Your task to perform on an android device: install app "Microsoft Excel" Image 0: 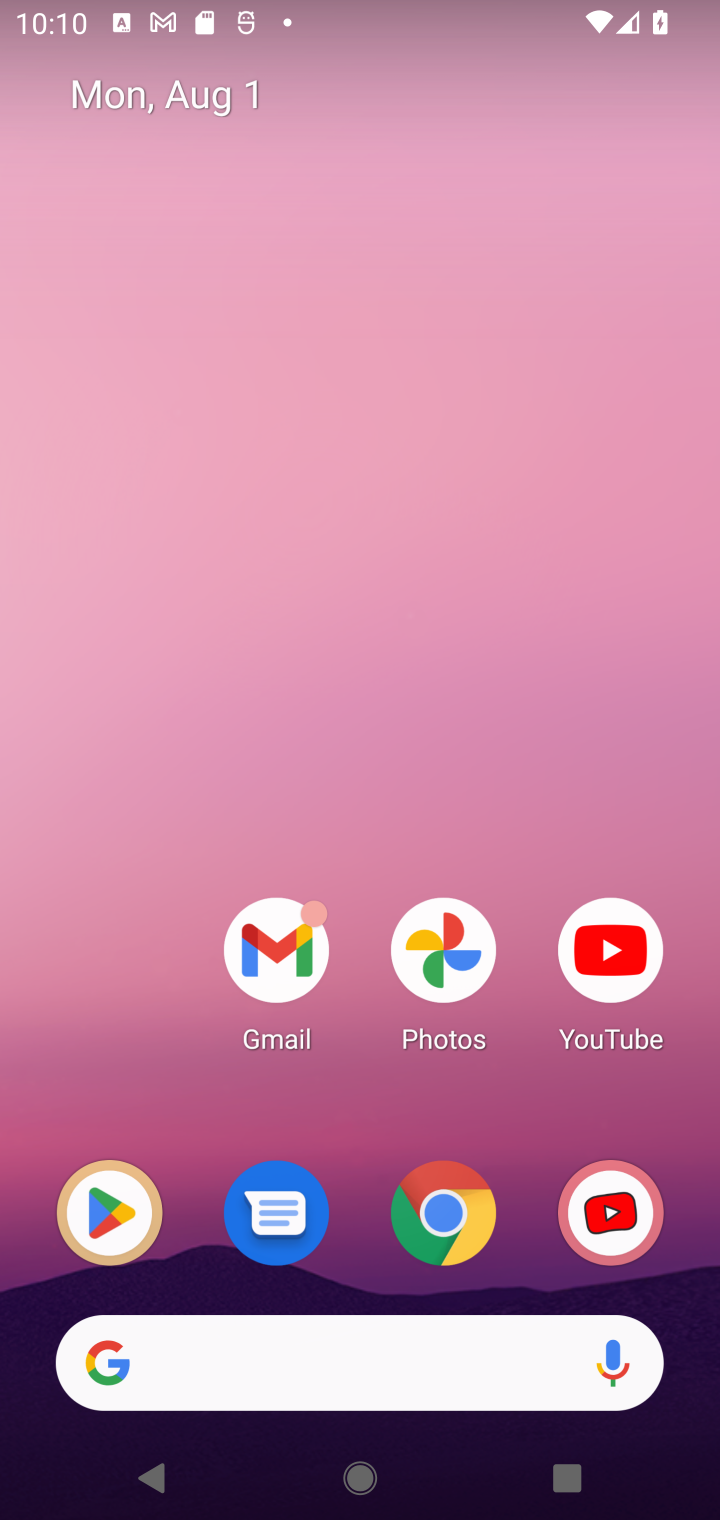
Step 0: press home button
Your task to perform on an android device: install app "Microsoft Excel" Image 1: 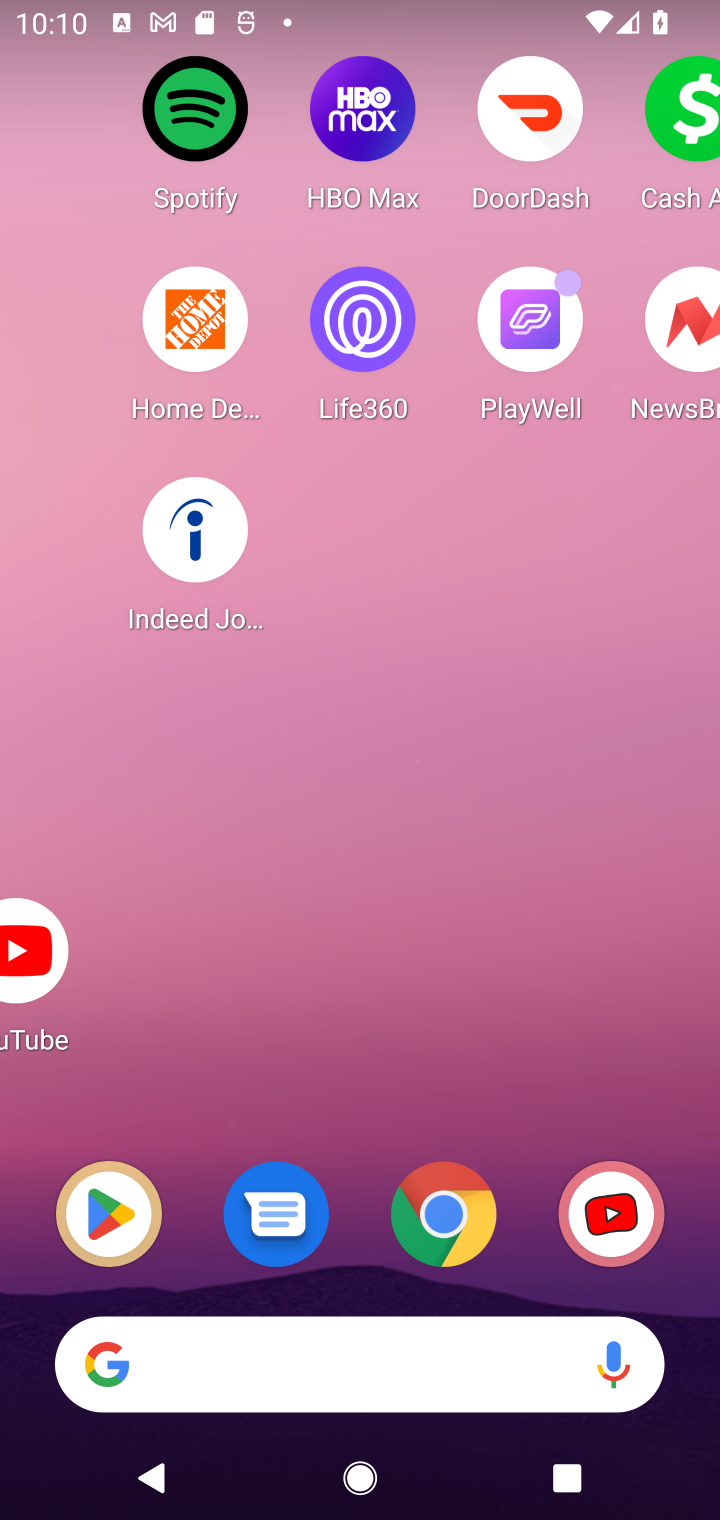
Step 1: click (133, 1206)
Your task to perform on an android device: install app "Microsoft Excel" Image 2: 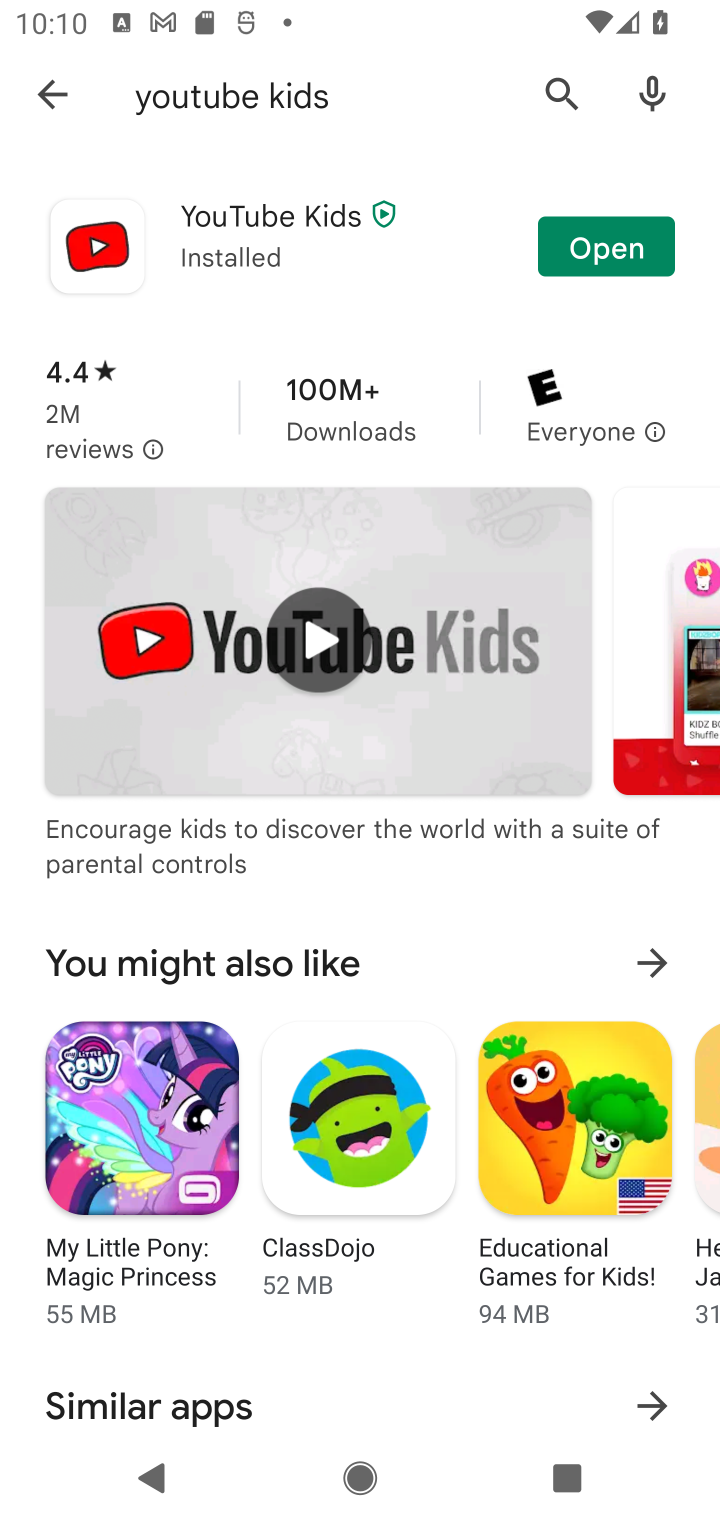
Step 2: click (554, 90)
Your task to perform on an android device: install app "Microsoft Excel" Image 3: 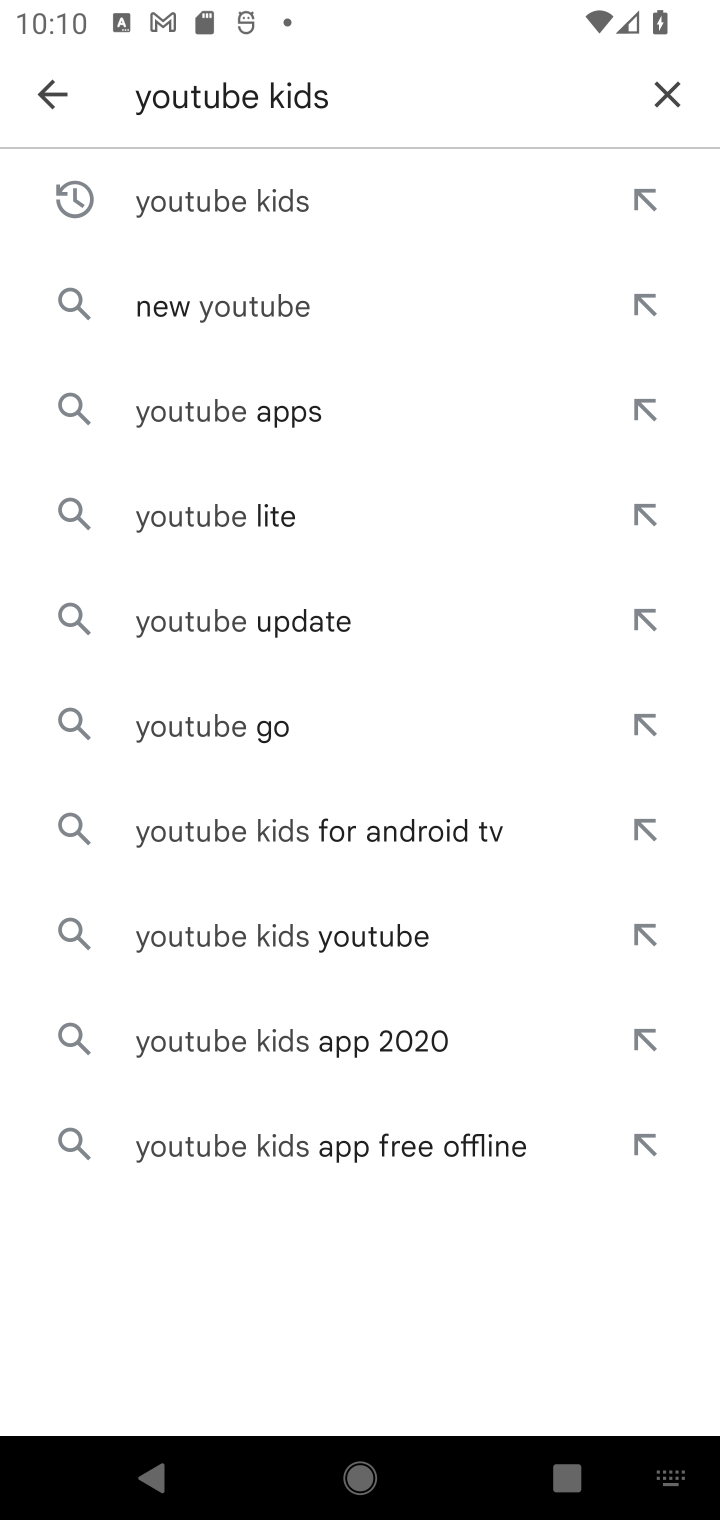
Step 3: click (664, 86)
Your task to perform on an android device: install app "Microsoft Excel" Image 4: 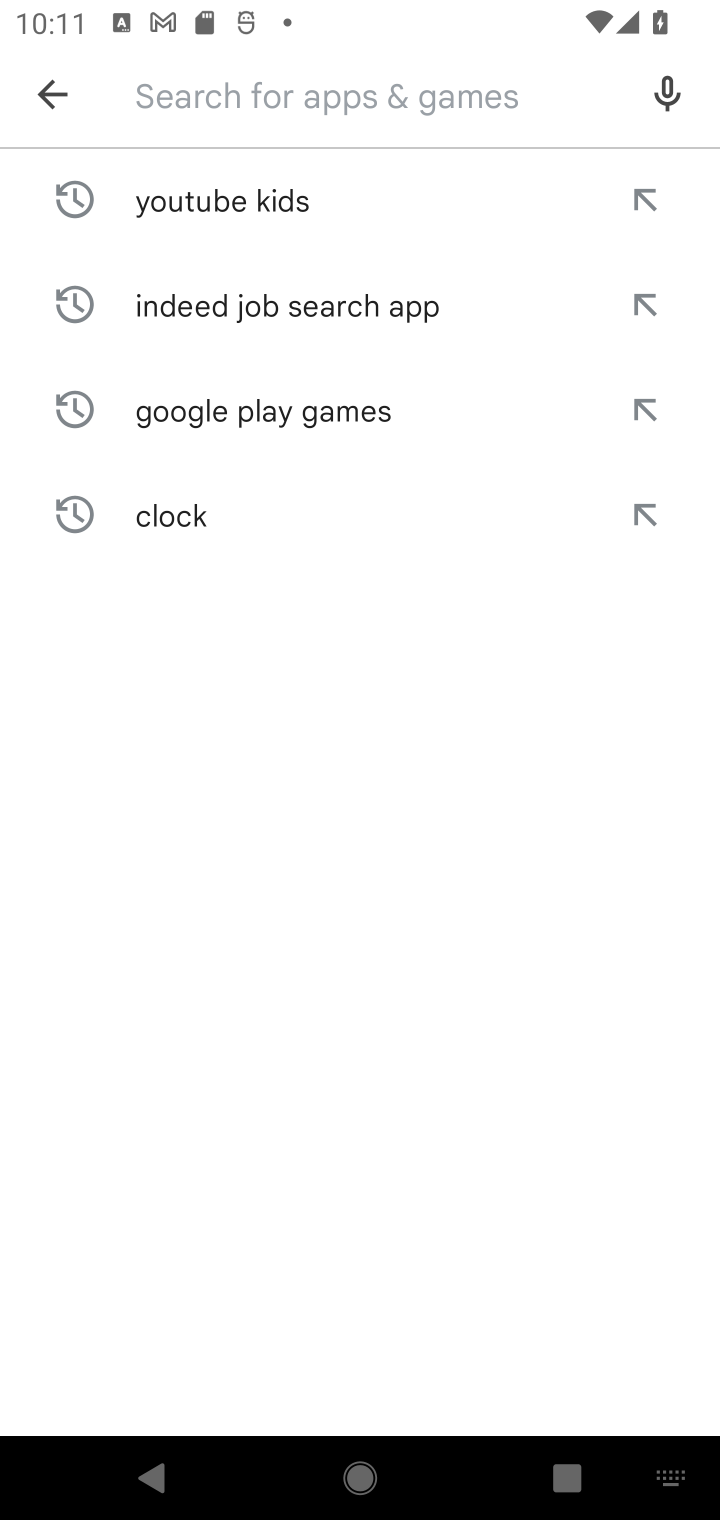
Step 4: type "Microsoft Excel"
Your task to perform on an android device: install app "Microsoft Excel" Image 5: 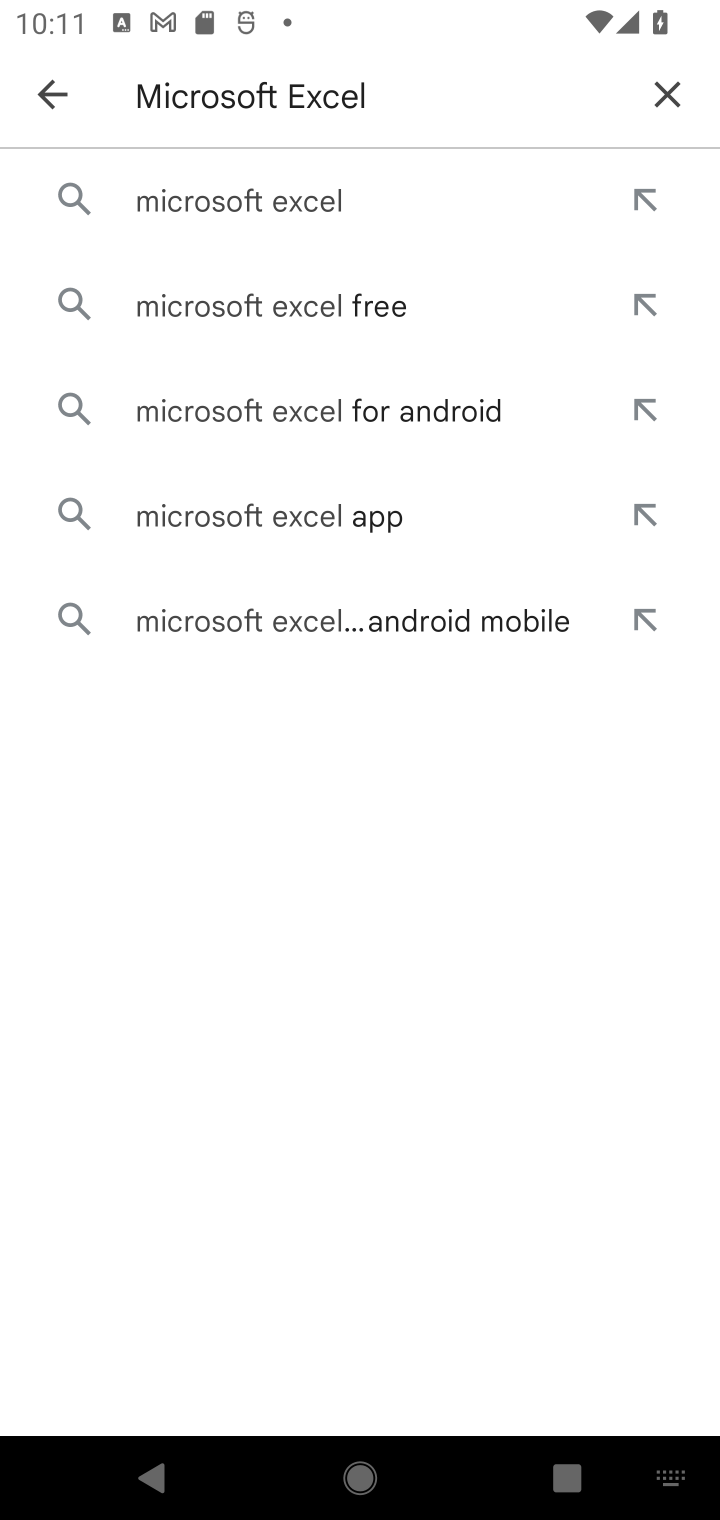
Step 5: click (311, 195)
Your task to perform on an android device: install app "Microsoft Excel" Image 6: 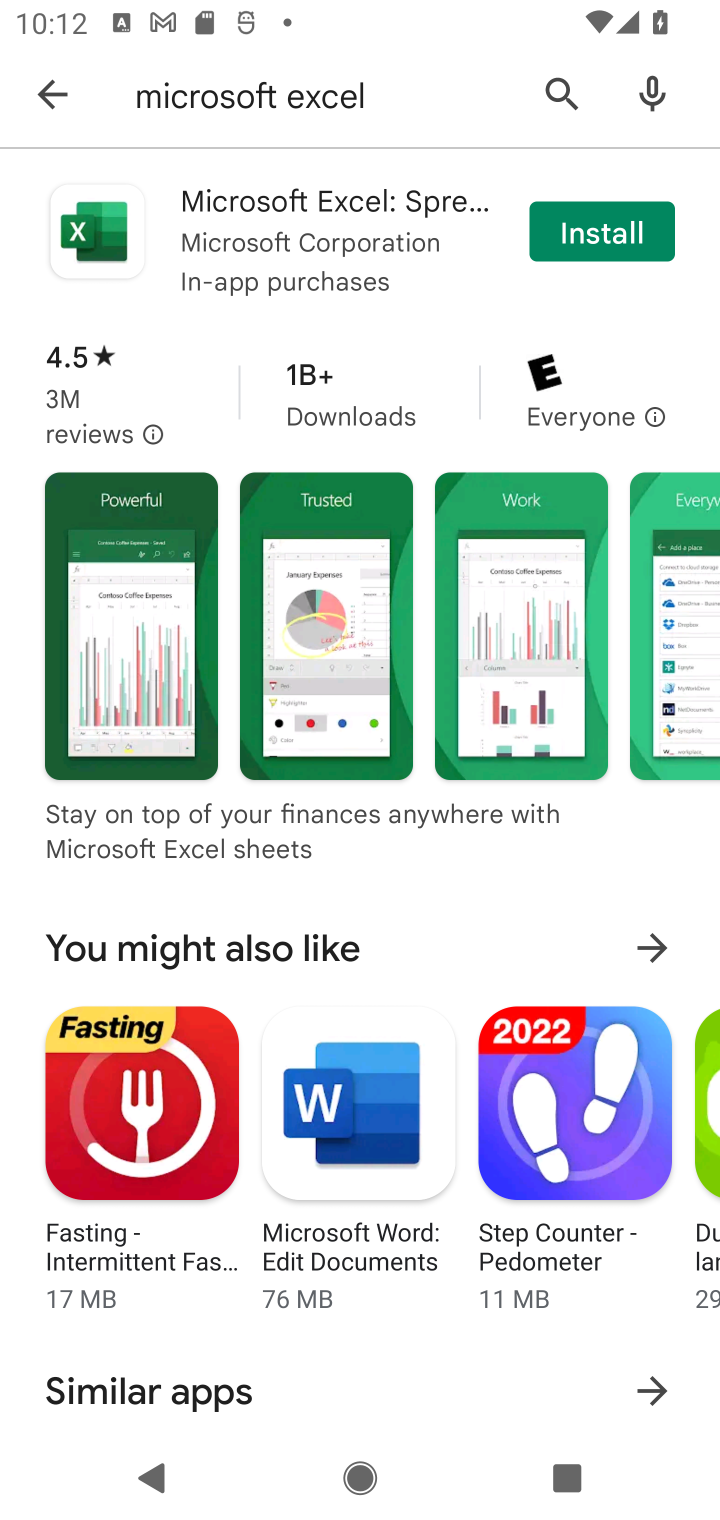
Step 6: click (594, 238)
Your task to perform on an android device: install app "Microsoft Excel" Image 7: 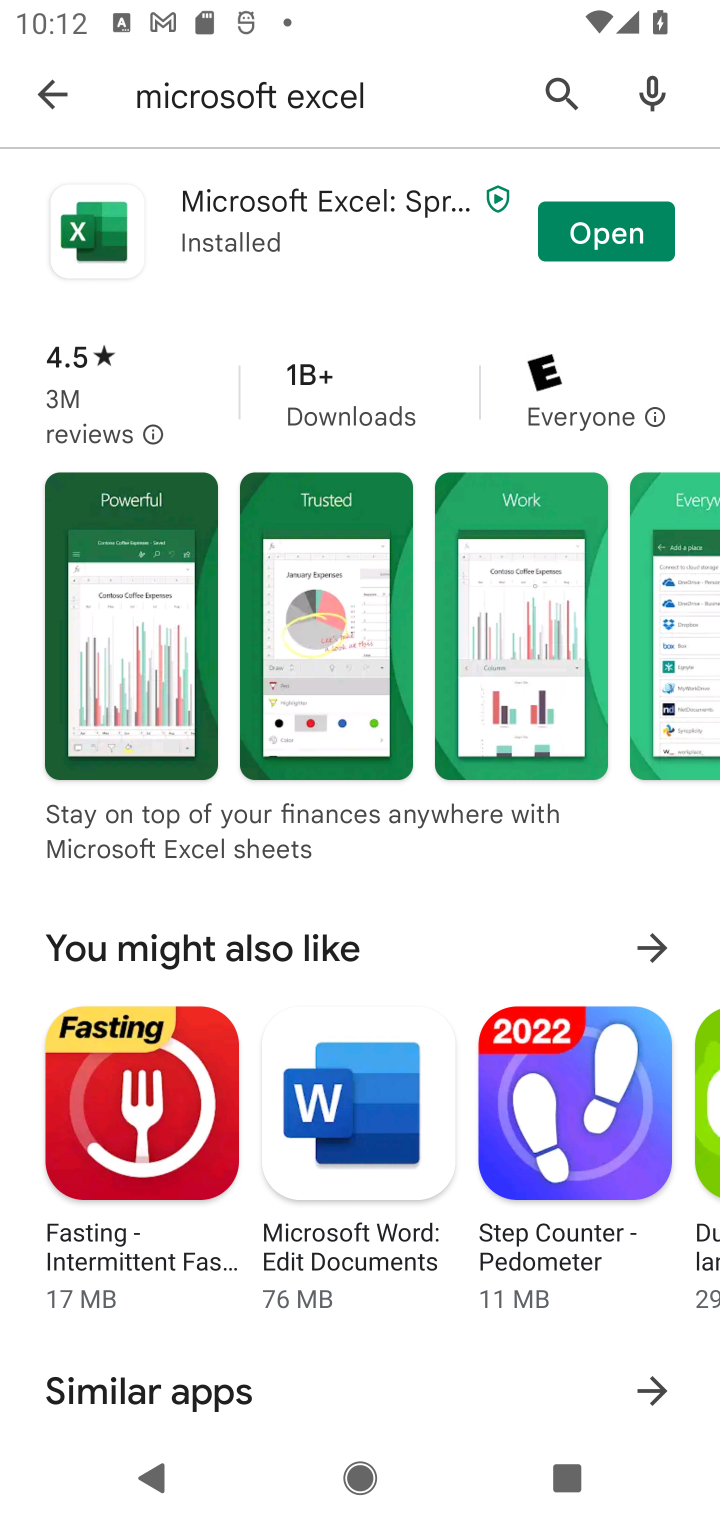
Step 7: task complete